Your task to perform on an android device: Open notification settings Image 0: 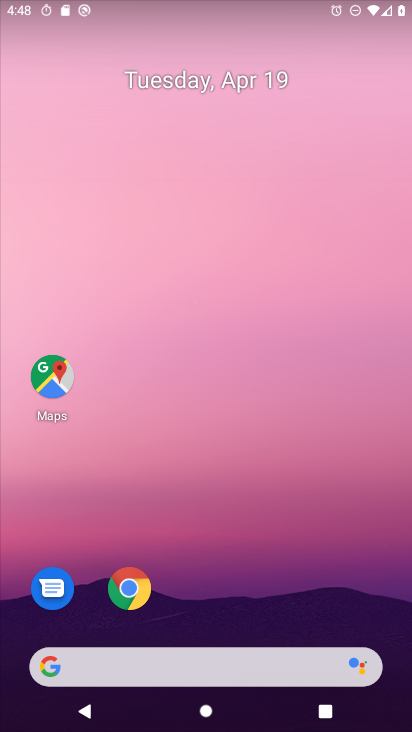
Step 0: drag from (222, 529) to (208, 70)
Your task to perform on an android device: Open notification settings Image 1: 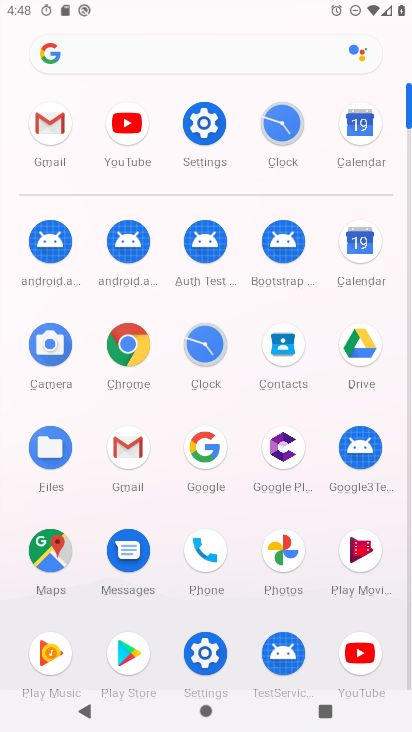
Step 1: click (206, 125)
Your task to perform on an android device: Open notification settings Image 2: 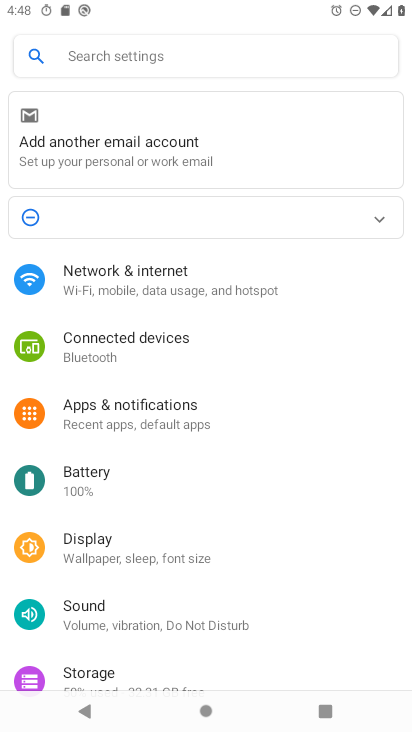
Step 2: click (172, 423)
Your task to perform on an android device: Open notification settings Image 3: 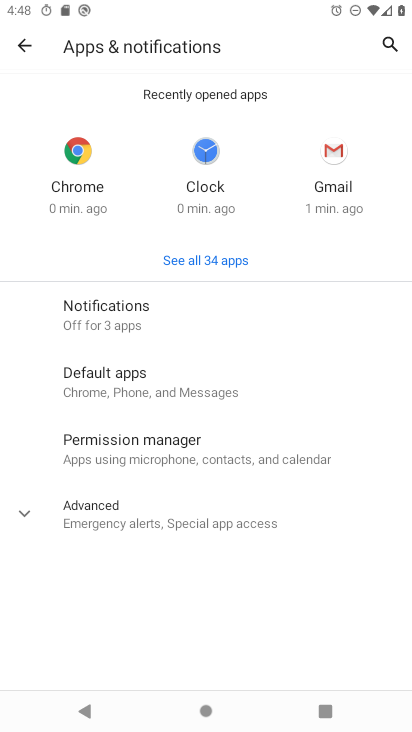
Step 3: task complete